Your task to perform on an android device: Open Chrome and go to settings Image 0: 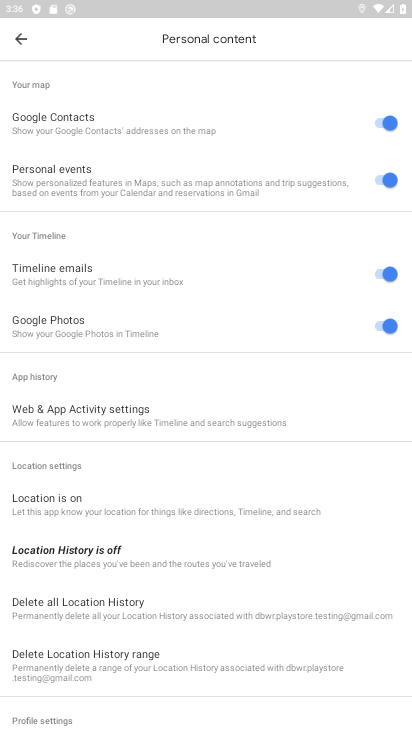
Step 0: press back button
Your task to perform on an android device: Open Chrome and go to settings Image 1: 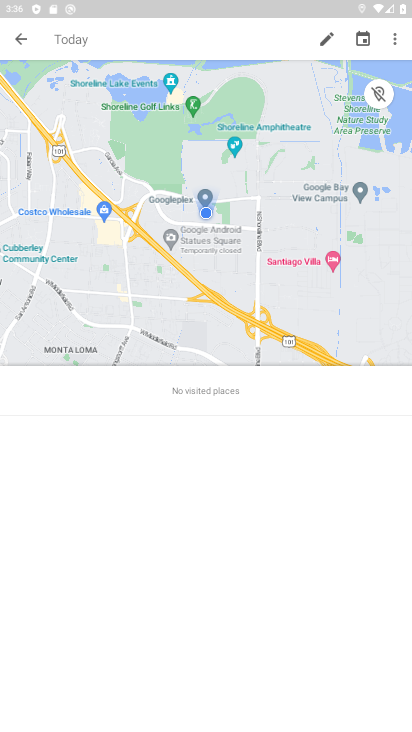
Step 1: press home button
Your task to perform on an android device: Open Chrome and go to settings Image 2: 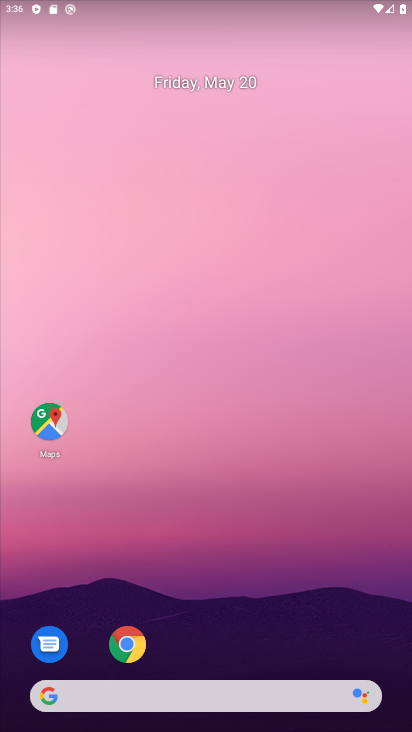
Step 2: click (121, 642)
Your task to perform on an android device: Open Chrome and go to settings Image 3: 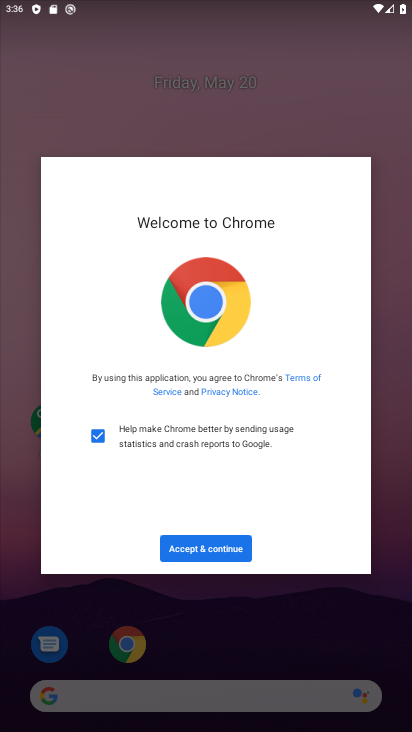
Step 3: click (180, 539)
Your task to perform on an android device: Open Chrome and go to settings Image 4: 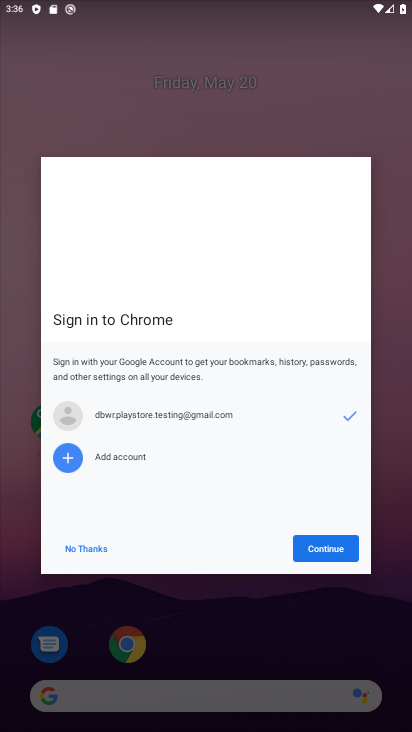
Step 4: click (321, 547)
Your task to perform on an android device: Open Chrome and go to settings Image 5: 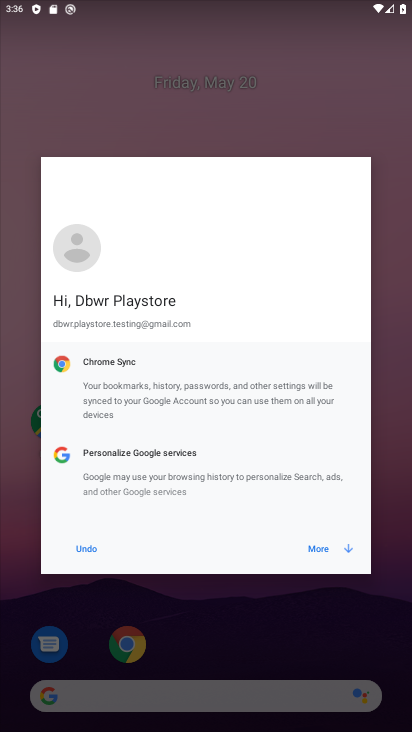
Step 5: click (313, 545)
Your task to perform on an android device: Open Chrome and go to settings Image 6: 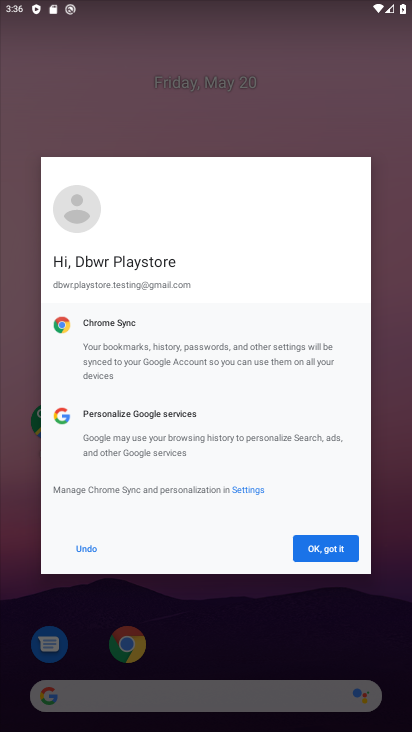
Step 6: click (313, 545)
Your task to perform on an android device: Open Chrome and go to settings Image 7: 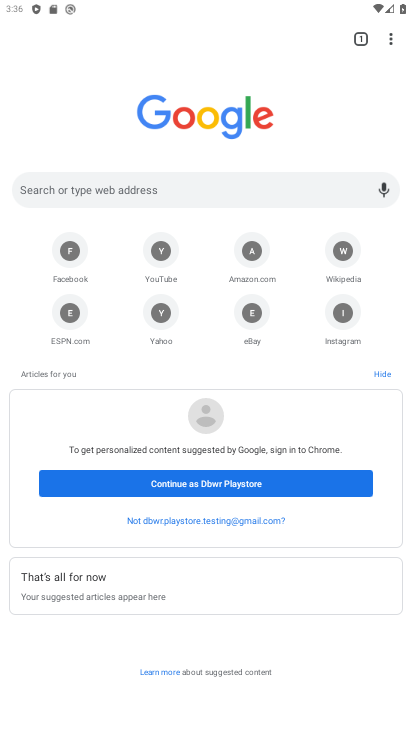
Step 7: task complete